Your task to perform on an android device: add a label to a message in the gmail app Image 0: 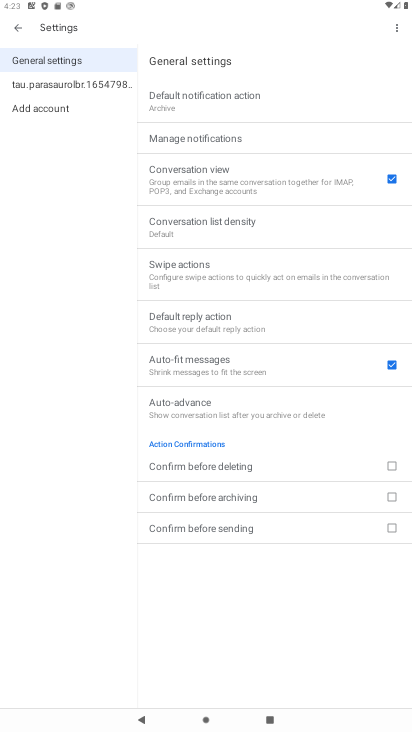
Step 0: press home button
Your task to perform on an android device: add a label to a message in the gmail app Image 1: 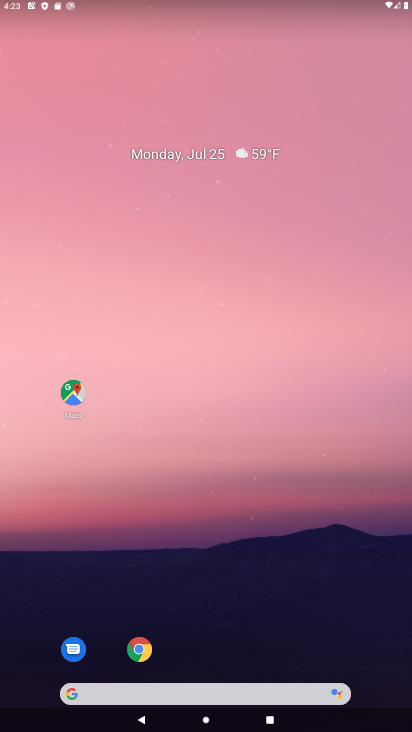
Step 1: drag from (298, 401) to (395, 0)
Your task to perform on an android device: add a label to a message in the gmail app Image 2: 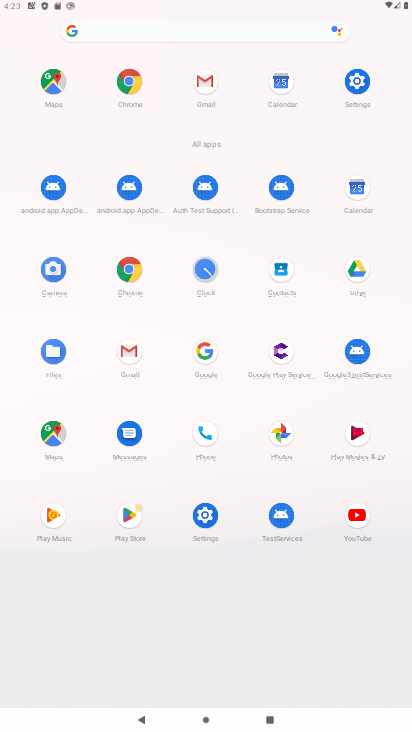
Step 2: click (196, 83)
Your task to perform on an android device: add a label to a message in the gmail app Image 3: 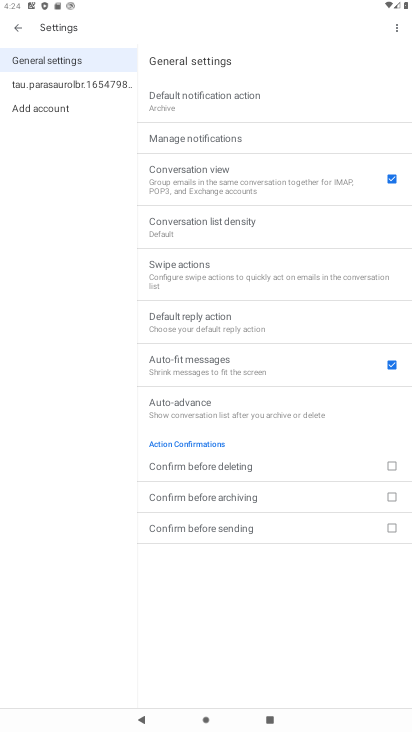
Step 3: click (80, 87)
Your task to perform on an android device: add a label to a message in the gmail app Image 4: 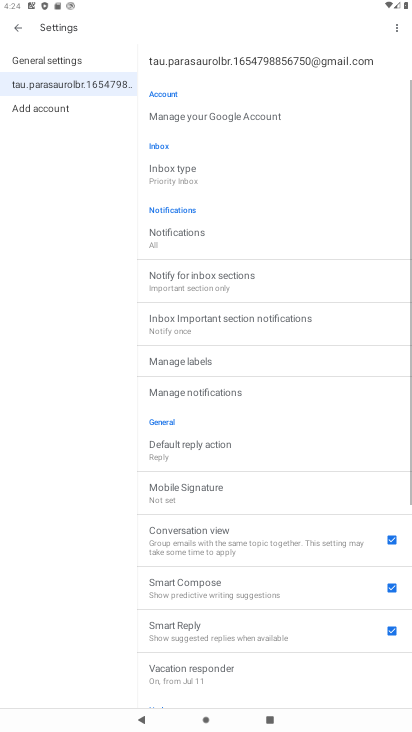
Step 4: click (16, 22)
Your task to perform on an android device: add a label to a message in the gmail app Image 5: 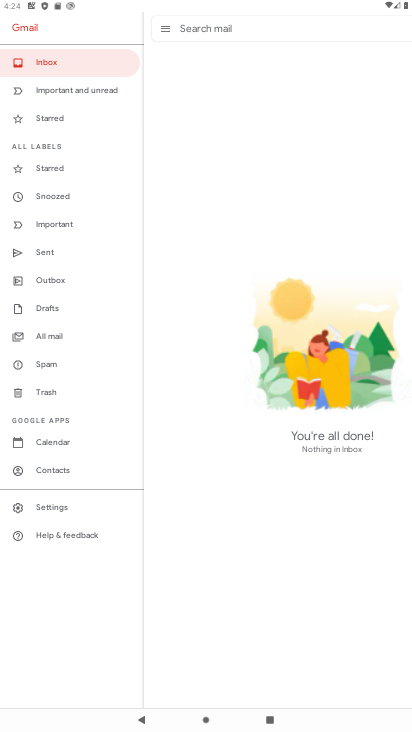
Step 5: click (63, 68)
Your task to perform on an android device: add a label to a message in the gmail app Image 6: 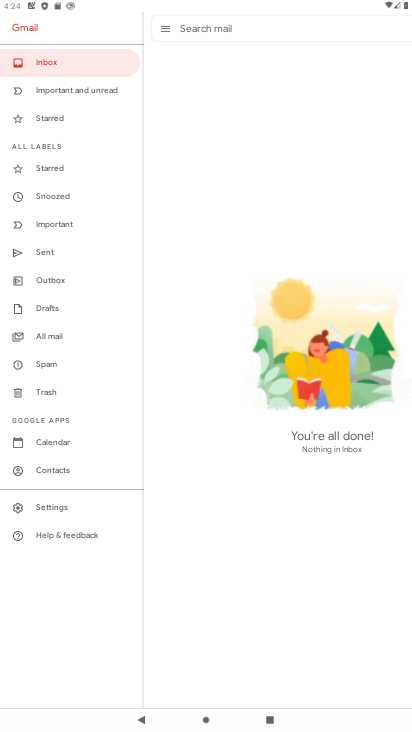
Step 6: task complete